Your task to perform on an android device: create a new album in the google photos Image 0: 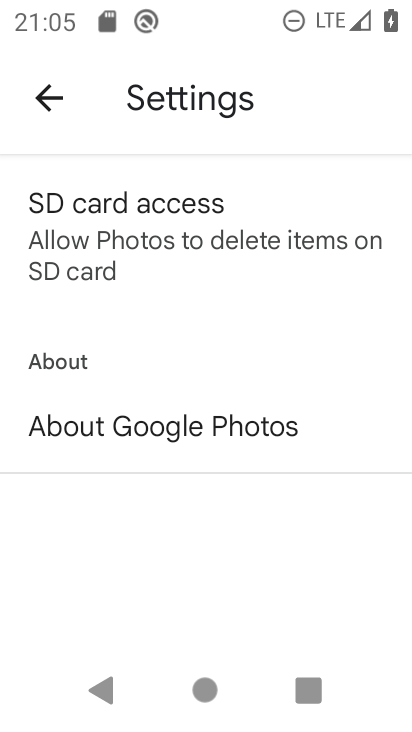
Step 0: press home button
Your task to perform on an android device: create a new album in the google photos Image 1: 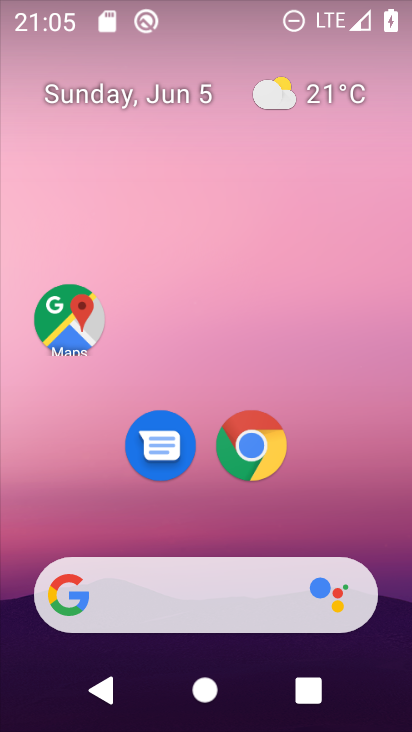
Step 1: drag from (361, 521) to (361, 110)
Your task to perform on an android device: create a new album in the google photos Image 2: 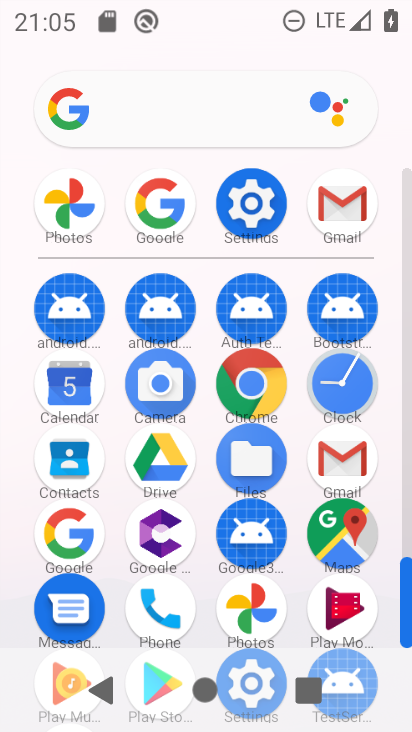
Step 2: click (67, 203)
Your task to perform on an android device: create a new album in the google photos Image 3: 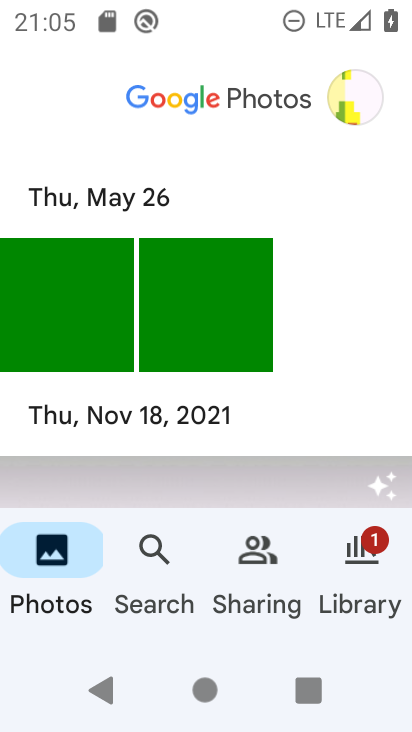
Step 3: click (72, 317)
Your task to perform on an android device: create a new album in the google photos Image 4: 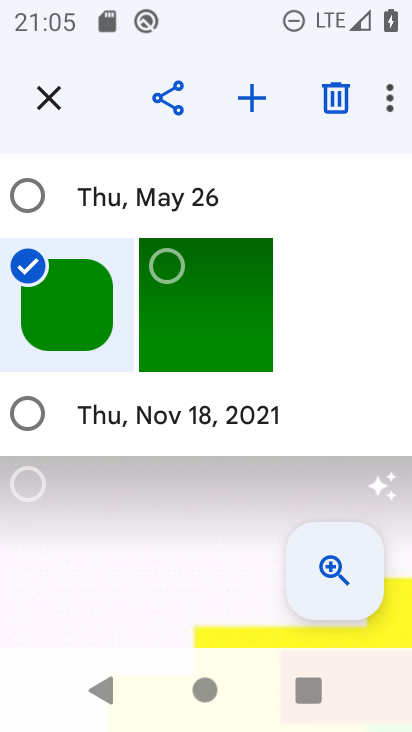
Step 4: click (270, 306)
Your task to perform on an android device: create a new album in the google photos Image 5: 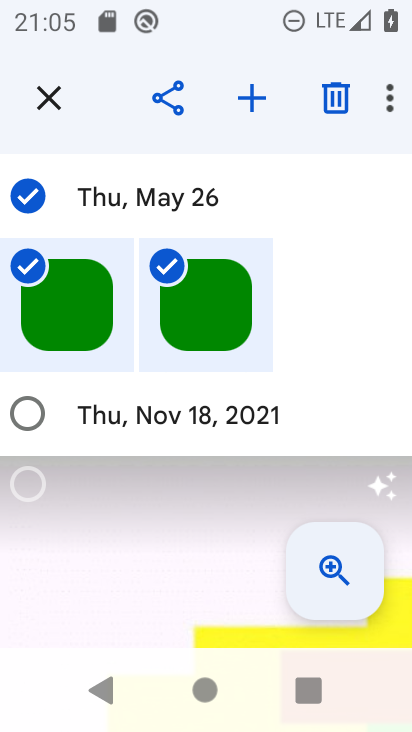
Step 5: click (263, 95)
Your task to perform on an android device: create a new album in the google photos Image 6: 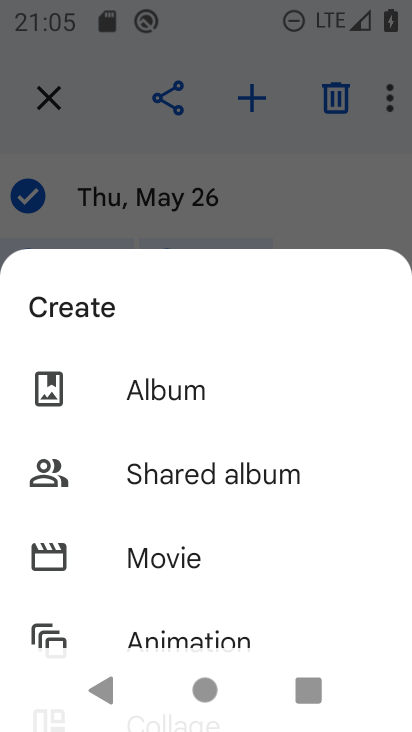
Step 6: click (186, 376)
Your task to perform on an android device: create a new album in the google photos Image 7: 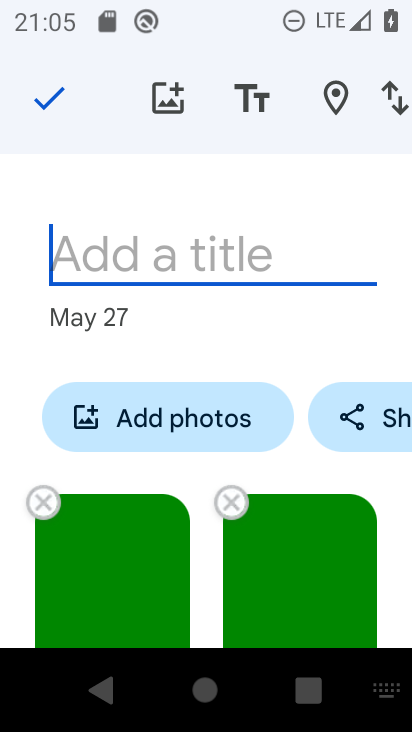
Step 7: type "xcghhxhxgf"
Your task to perform on an android device: create a new album in the google photos Image 8: 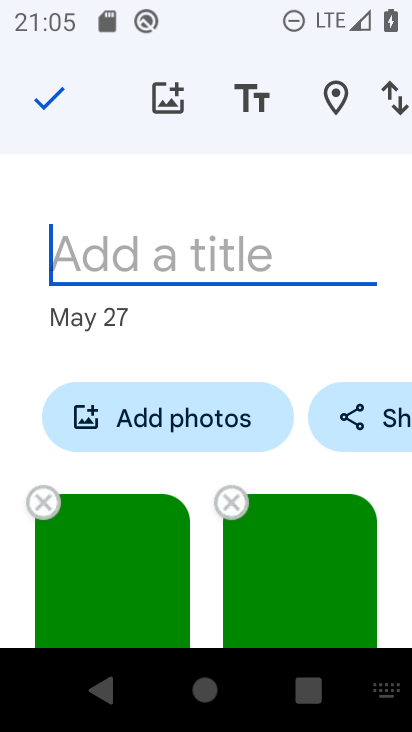
Step 8: click (214, 240)
Your task to perform on an android device: create a new album in the google photos Image 9: 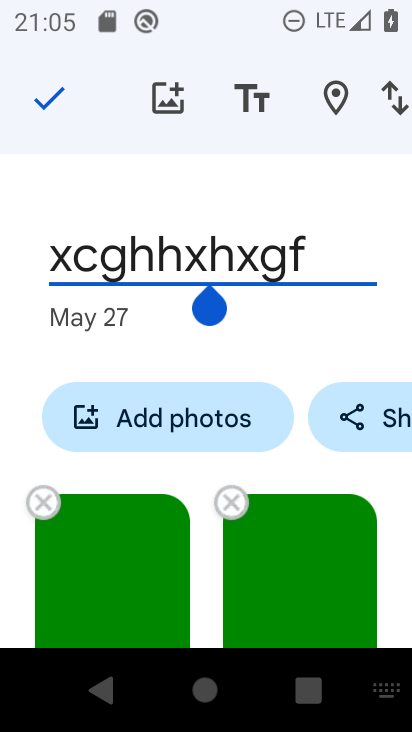
Step 9: click (35, 92)
Your task to perform on an android device: create a new album in the google photos Image 10: 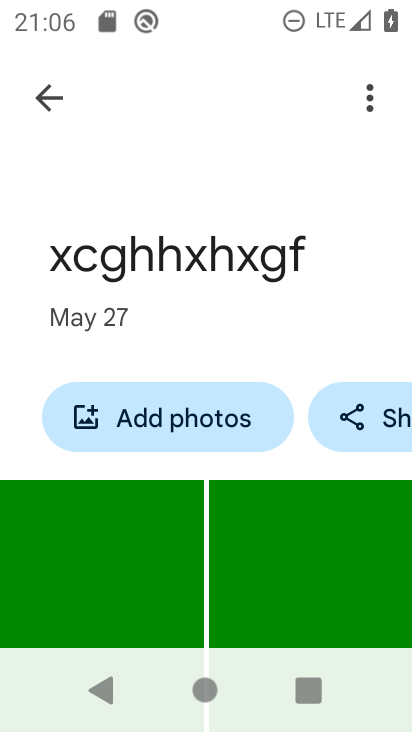
Step 10: task complete